Your task to perform on an android device: Go to wifi settings Image 0: 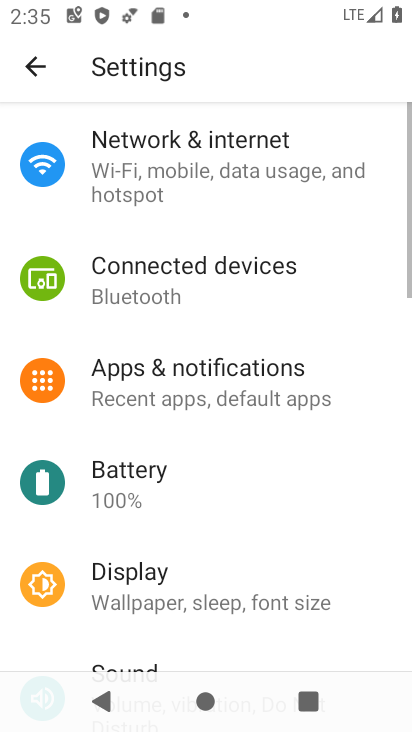
Step 0: press home button
Your task to perform on an android device: Go to wifi settings Image 1: 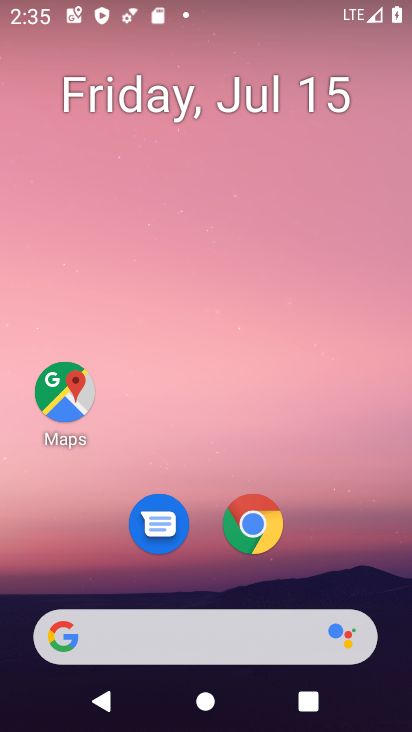
Step 1: drag from (185, 641) to (293, 145)
Your task to perform on an android device: Go to wifi settings Image 2: 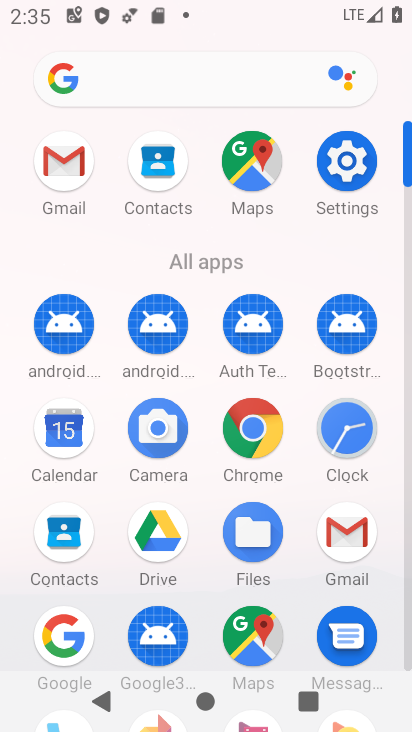
Step 2: click (349, 157)
Your task to perform on an android device: Go to wifi settings Image 3: 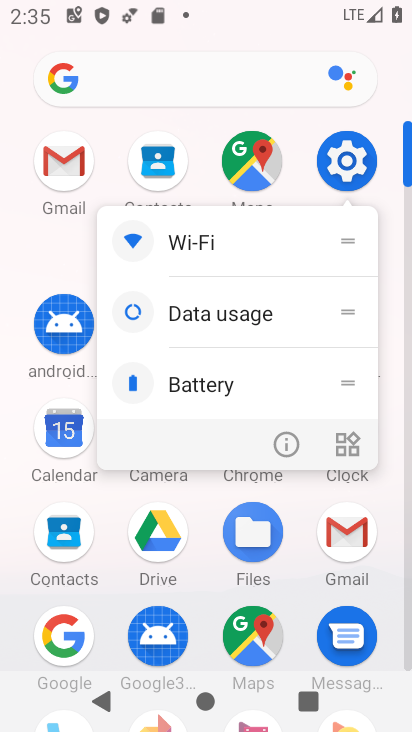
Step 3: click (349, 157)
Your task to perform on an android device: Go to wifi settings Image 4: 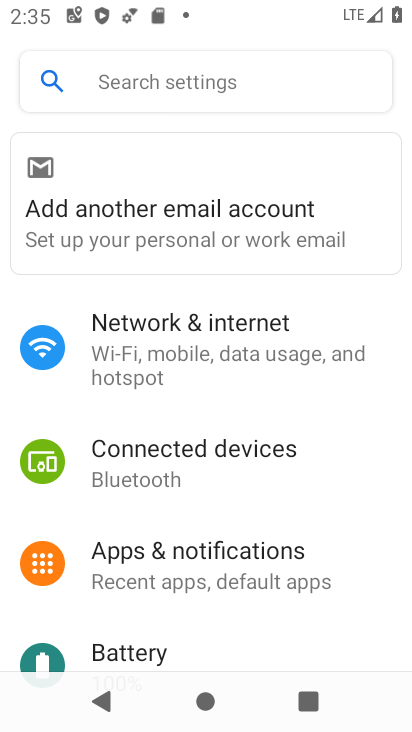
Step 4: click (237, 321)
Your task to perform on an android device: Go to wifi settings Image 5: 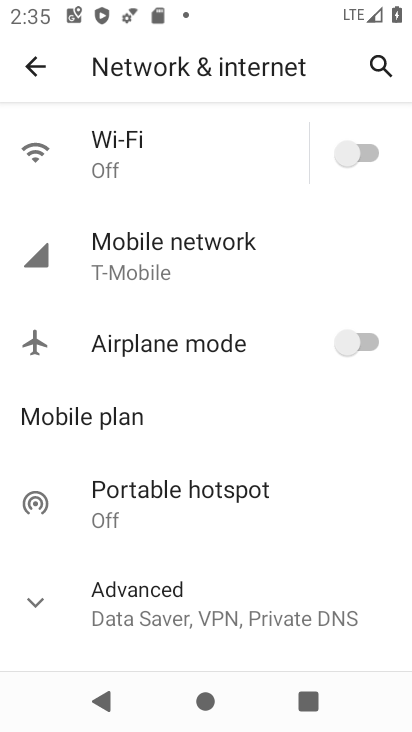
Step 5: click (138, 157)
Your task to perform on an android device: Go to wifi settings Image 6: 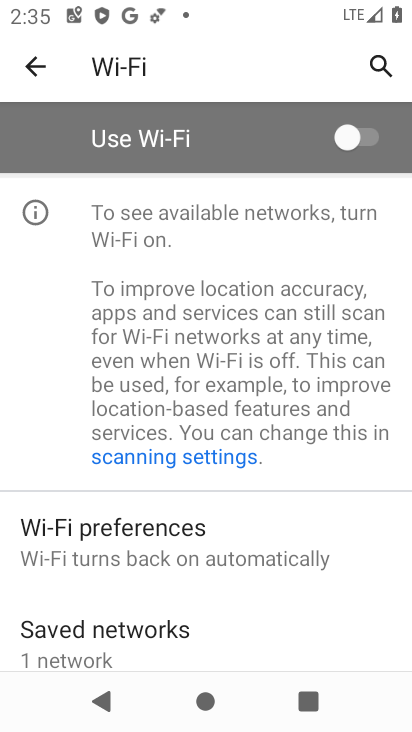
Step 6: task complete